Your task to perform on an android device: delete browsing data in the chrome app Image 0: 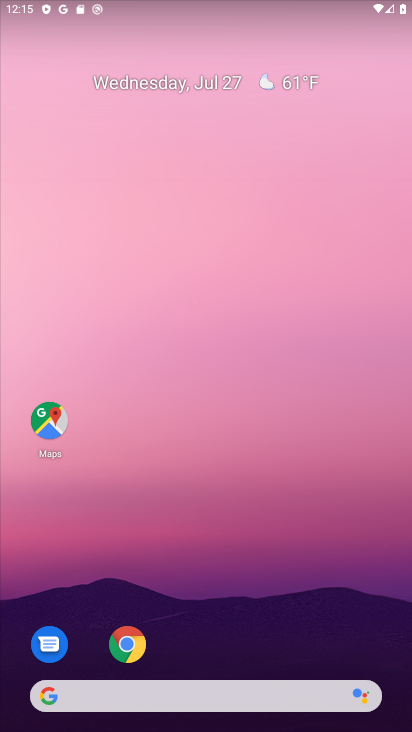
Step 0: drag from (182, 647) to (250, 266)
Your task to perform on an android device: delete browsing data in the chrome app Image 1: 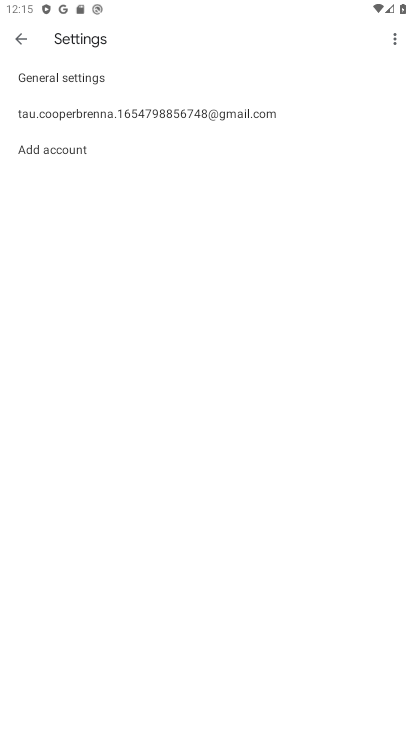
Step 1: press home button
Your task to perform on an android device: delete browsing data in the chrome app Image 2: 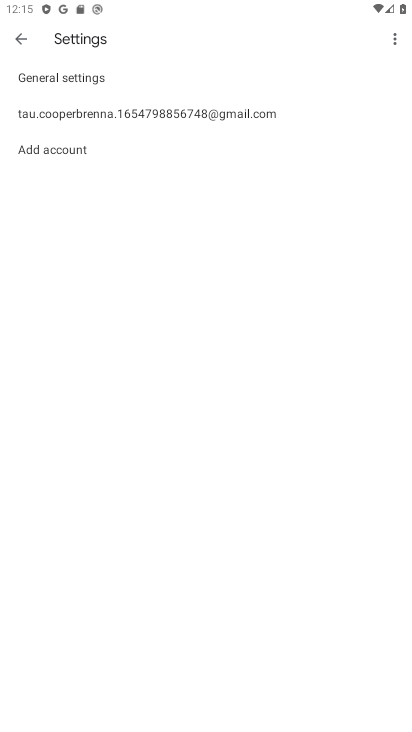
Step 2: drag from (161, 613) to (298, 149)
Your task to perform on an android device: delete browsing data in the chrome app Image 3: 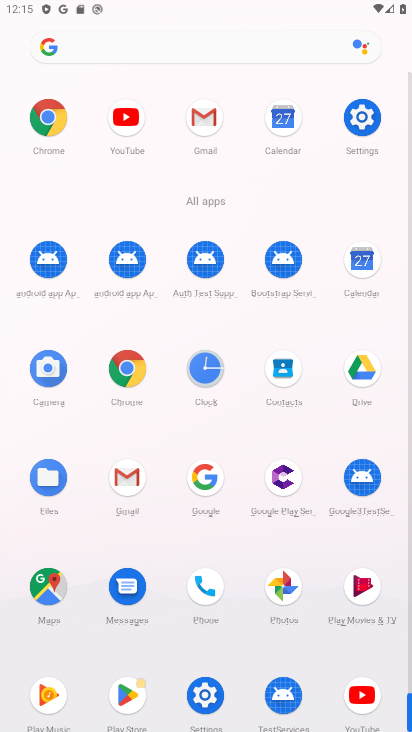
Step 3: click (125, 355)
Your task to perform on an android device: delete browsing data in the chrome app Image 4: 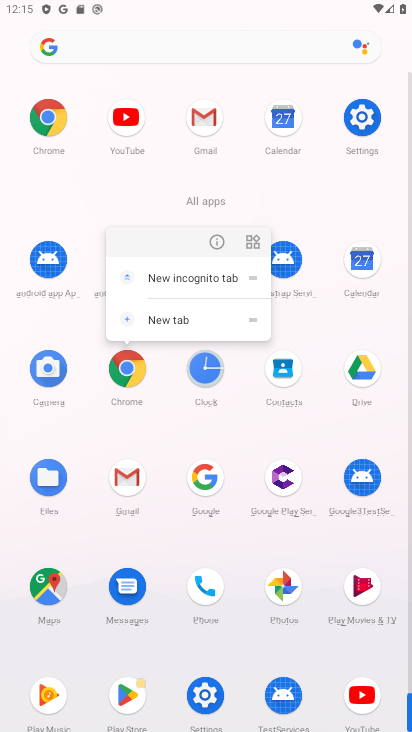
Step 4: click (215, 233)
Your task to perform on an android device: delete browsing data in the chrome app Image 5: 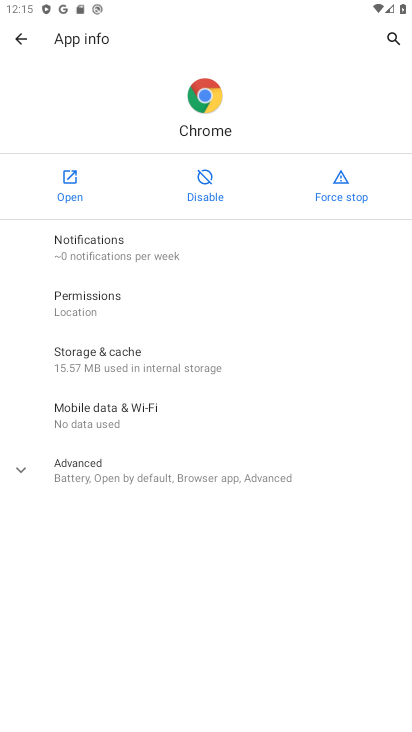
Step 5: click (78, 174)
Your task to perform on an android device: delete browsing data in the chrome app Image 6: 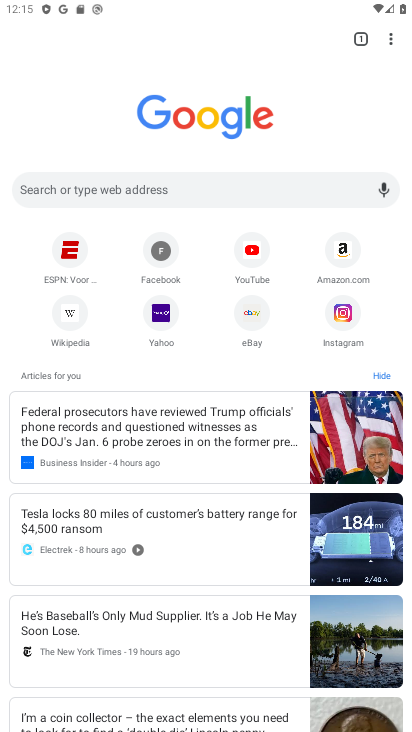
Step 6: drag from (388, 34) to (263, 278)
Your task to perform on an android device: delete browsing data in the chrome app Image 7: 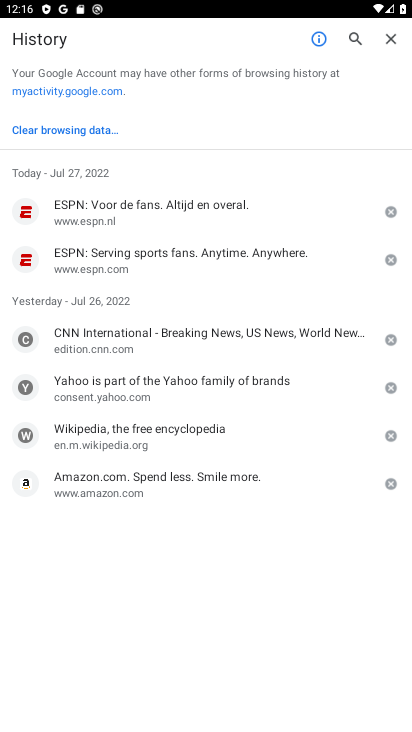
Step 7: click (35, 137)
Your task to perform on an android device: delete browsing data in the chrome app Image 8: 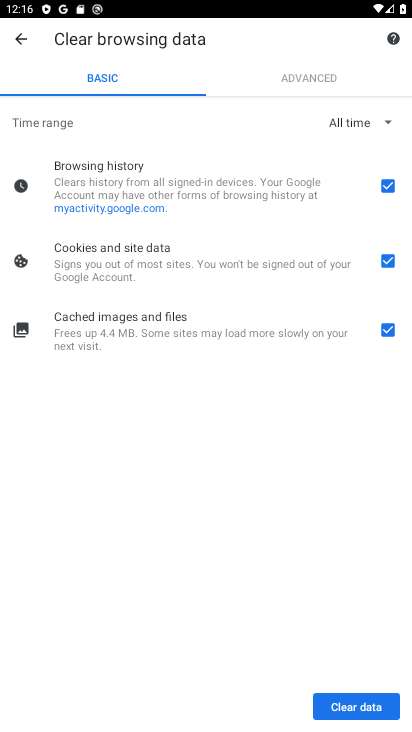
Step 8: drag from (249, 449) to (284, 205)
Your task to perform on an android device: delete browsing data in the chrome app Image 9: 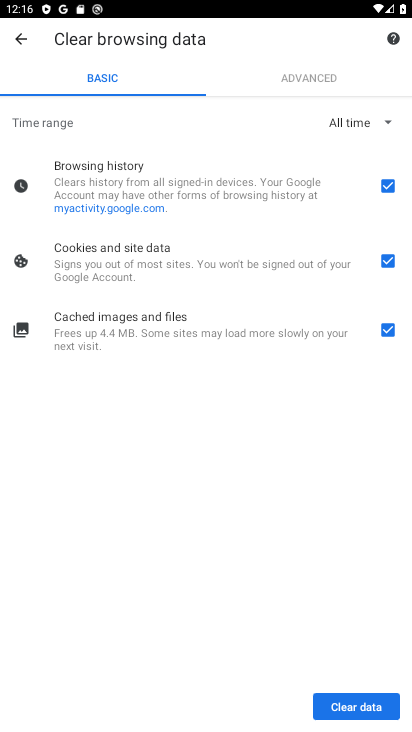
Step 9: click (360, 695)
Your task to perform on an android device: delete browsing data in the chrome app Image 10: 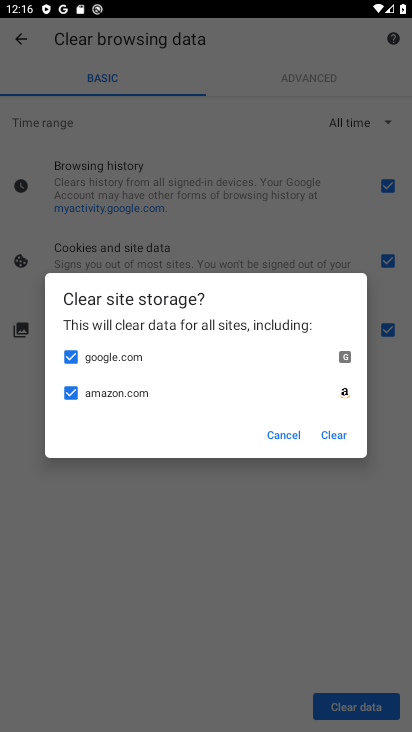
Step 10: click (337, 438)
Your task to perform on an android device: delete browsing data in the chrome app Image 11: 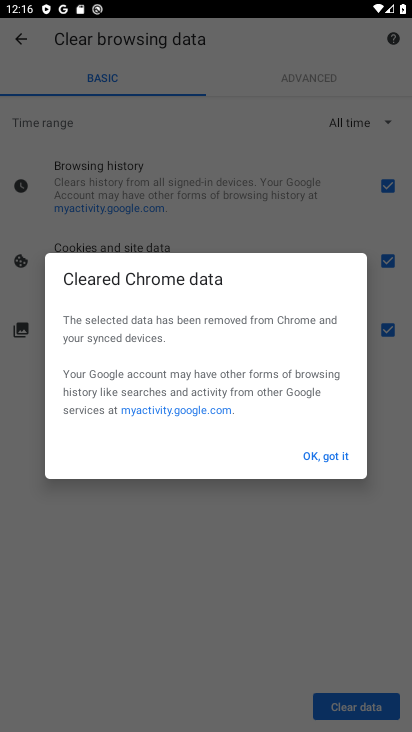
Step 11: click (332, 462)
Your task to perform on an android device: delete browsing data in the chrome app Image 12: 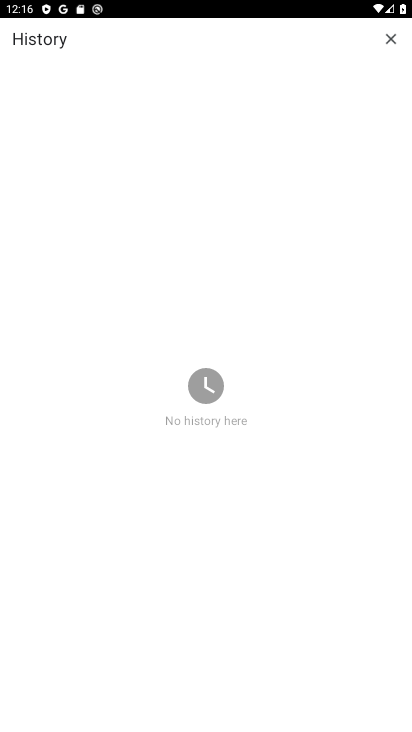
Step 12: task complete